Your task to perform on an android device: change the clock style Image 0: 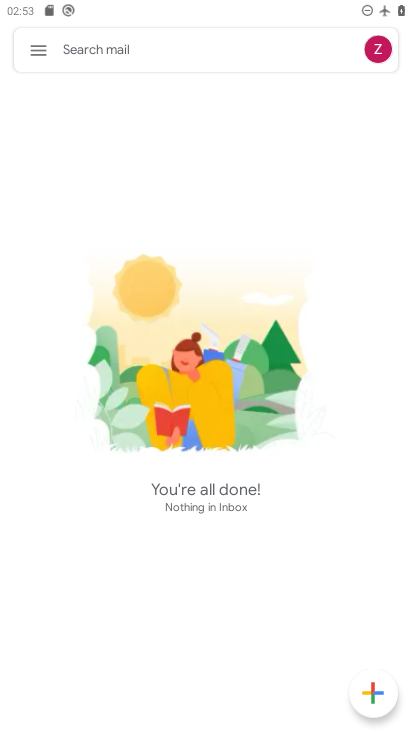
Step 0: press home button
Your task to perform on an android device: change the clock style Image 1: 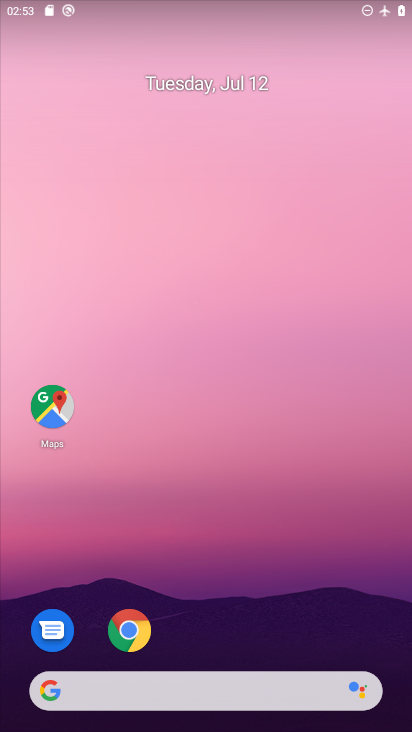
Step 1: drag from (397, 649) to (339, 118)
Your task to perform on an android device: change the clock style Image 2: 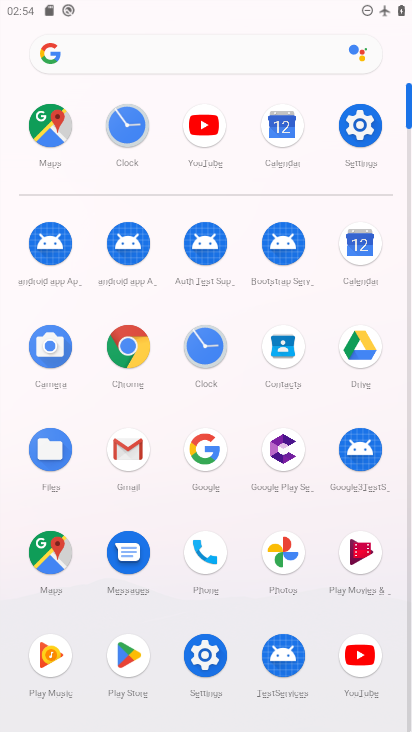
Step 2: click (204, 349)
Your task to perform on an android device: change the clock style Image 3: 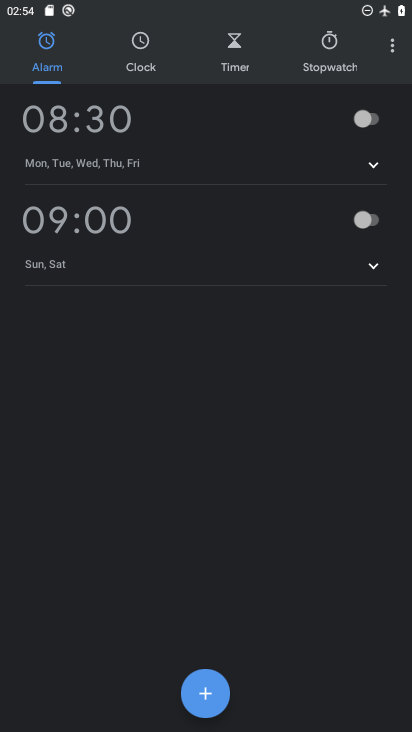
Step 3: click (389, 53)
Your task to perform on an android device: change the clock style Image 4: 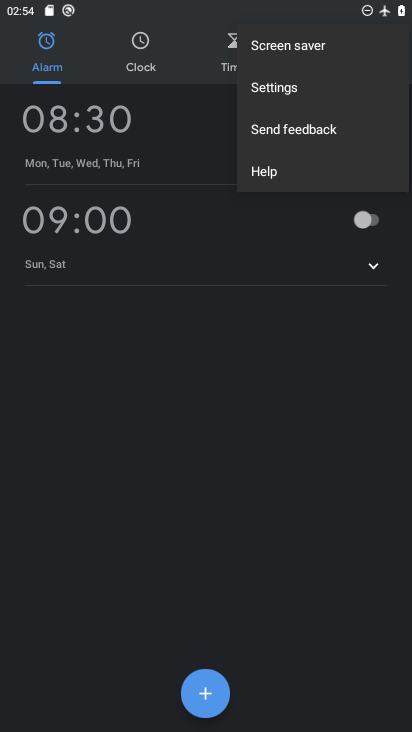
Step 4: click (273, 95)
Your task to perform on an android device: change the clock style Image 5: 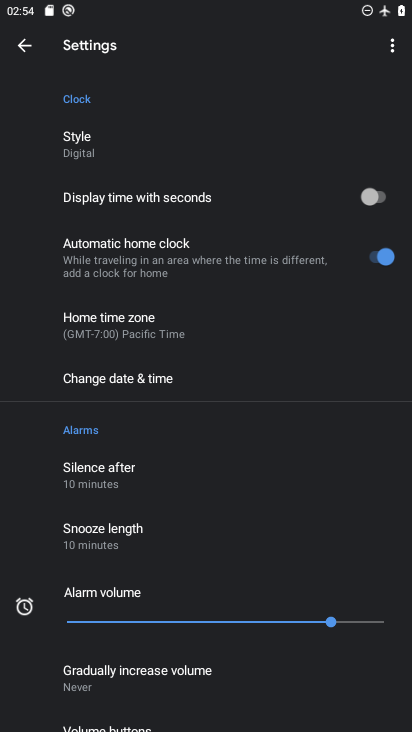
Step 5: click (87, 141)
Your task to perform on an android device: change the clock style Image 6: 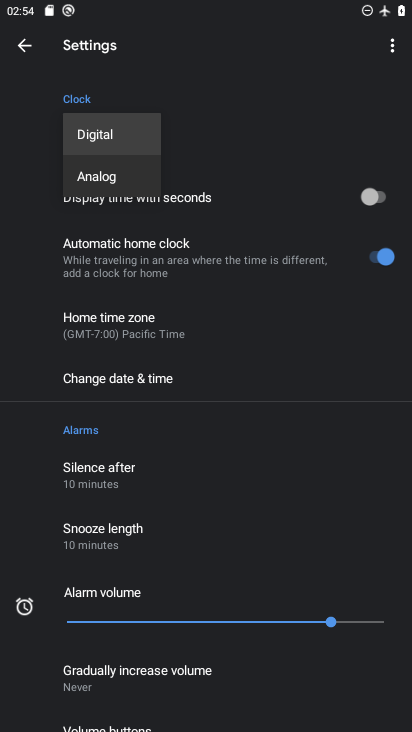
Step 6: click (108, 184)
Your task to perform on an android device: change the clock style Image 7: 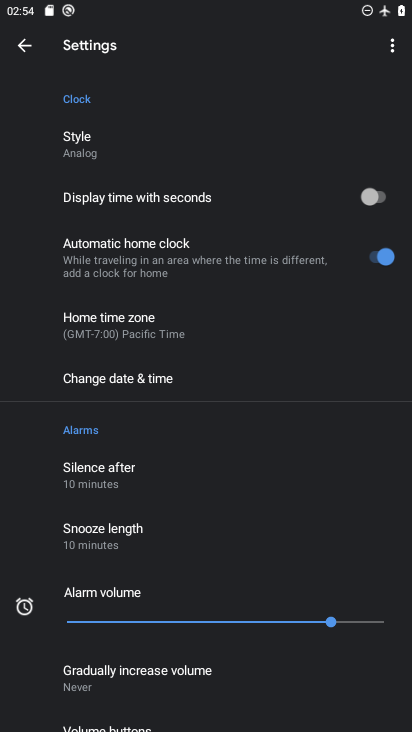
Step 7: task complete